Your task to perform on an android device: make emails show in primary in the gmail app Image 0: 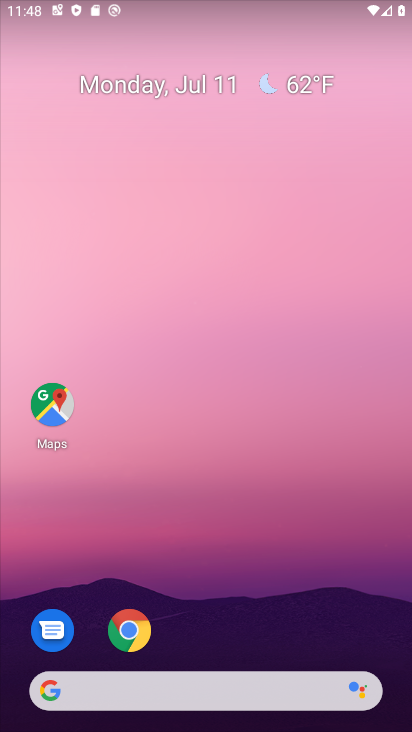
Step 0: drag from (260, 659) to (346, 67)
Your task to perform on an android device: make emails show in primary in the gmail app Image 1: 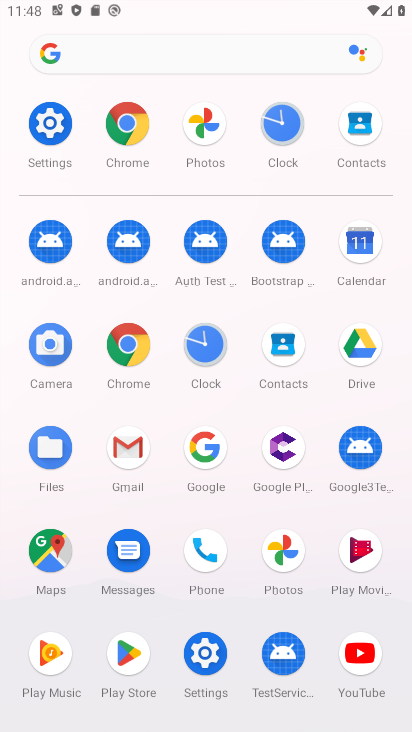
Step 1: click (130, 444)
Your task to perform on an android device: make emails show in primary in the gmail app Image 2: 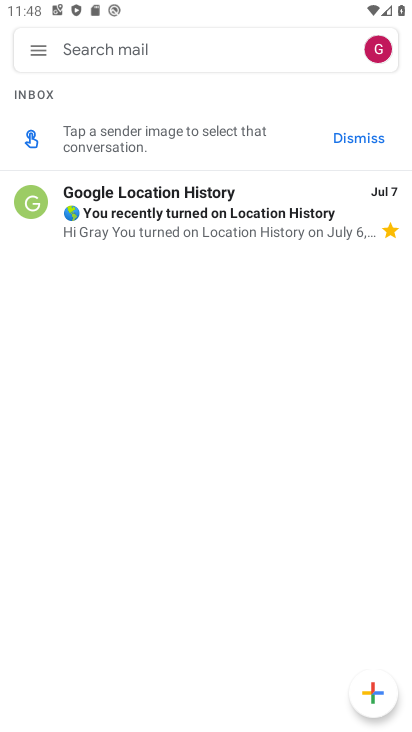
Step 2: click (36, 49)
Your task to perform on an android device: make emails show in primary in the gmail app Image 3: 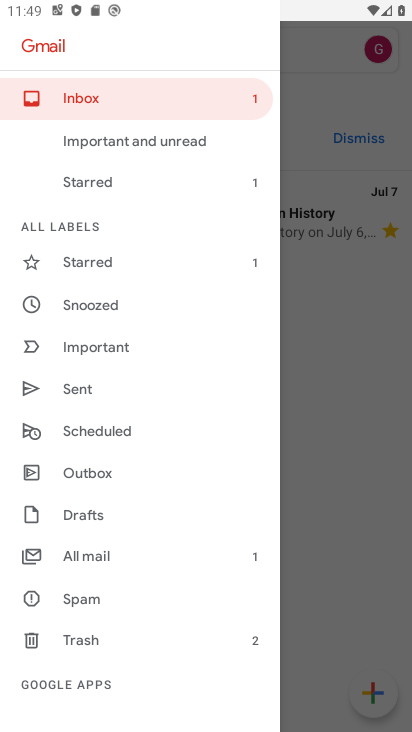
Step 3: drag from (130, 654) to (290, 3)
Your task to perform on an android device: make emails show in primary in the gmail app Image 4: 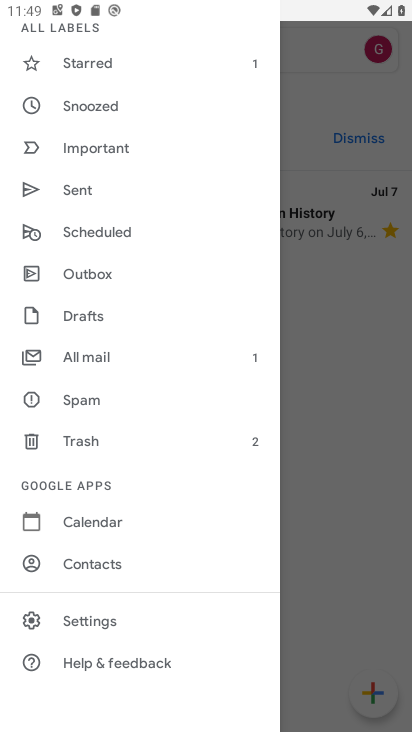
Step 4: click (121, 617)
Your task to perform on an android device: make emails show in primary in the gmail app Image 5: 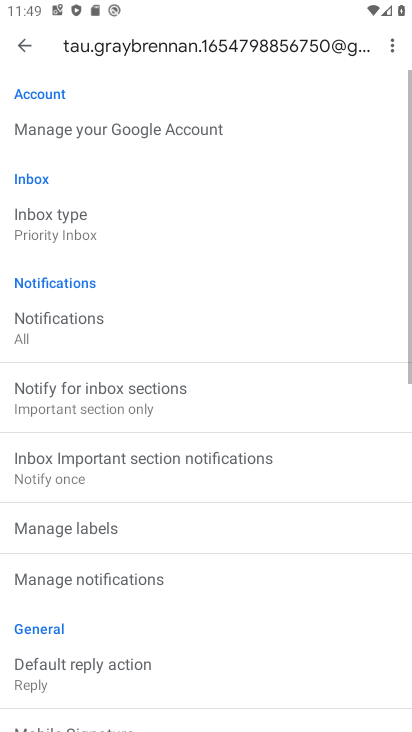
Step 5: click (101, 231)
Your task to perform on an android device: make emails show in primary in the gmail app Image 6: 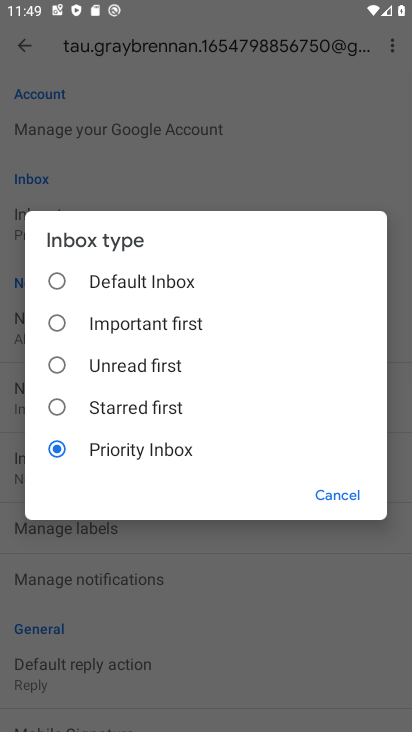
Step 6: click (55, 273)
Your task to perform on an android device: make emails show in primary in the gmail app Image 7: 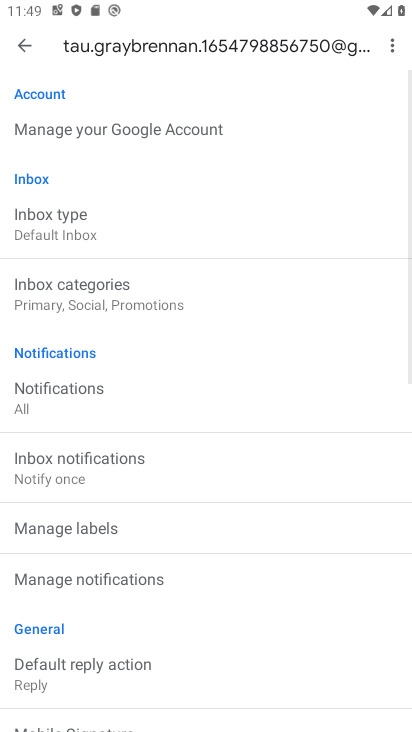
Step 7: press back button
Your task to perform on an android device: make emails show in primary in the gmail app Image 8: 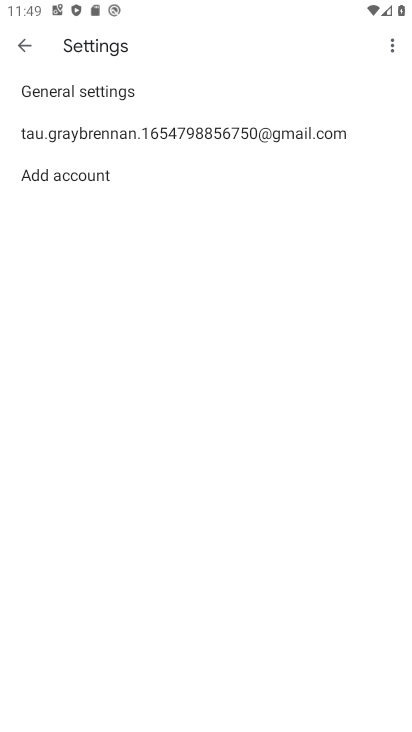
Step 8: press back button
Your task to perform on an android device: make emails show in primary in the gmail app Image 9: 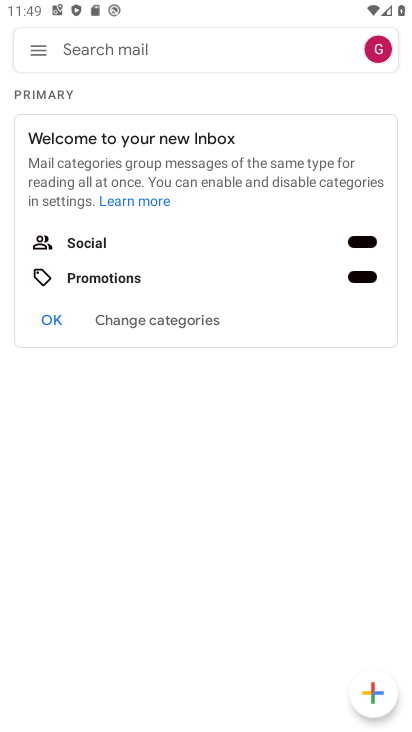
Step 9: click (43, 50)
Your task to perform on an android device: make emails show in primary in the gmail app Image 10: 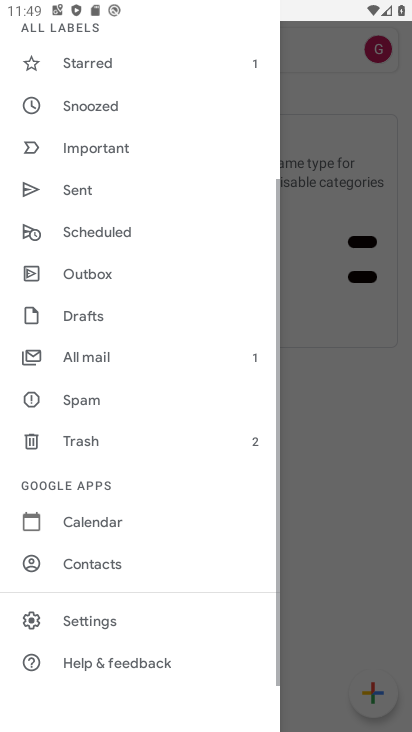
Step 10: task complete